Your task to perform on an android device: Open Youtube and go to "Your channel" Image 0: 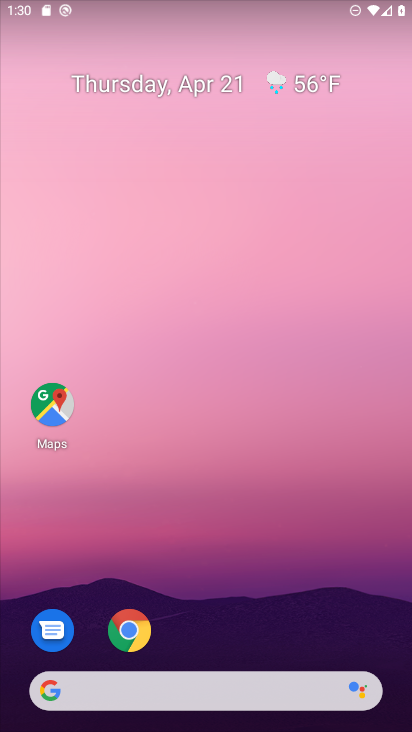
Step 0: drag from (206, 695) to (205, 197)
Your task to perform on an android device: Open Youtube and go to "Your channel" Image 1: 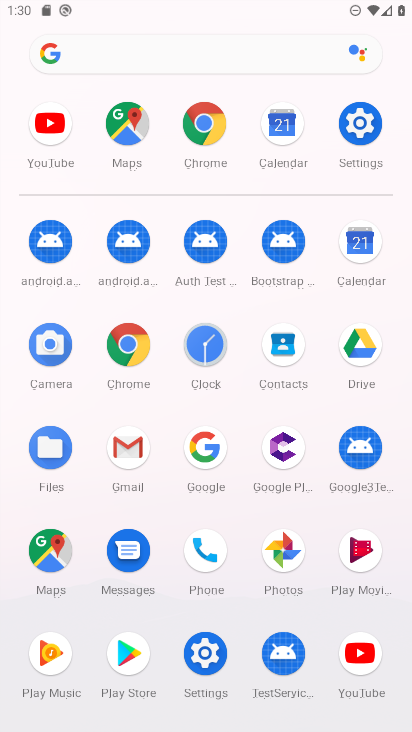
Step 1: click (354, 641)
Your task to perform on an android device: Open Youtube and go to "Your channel" Image 2: 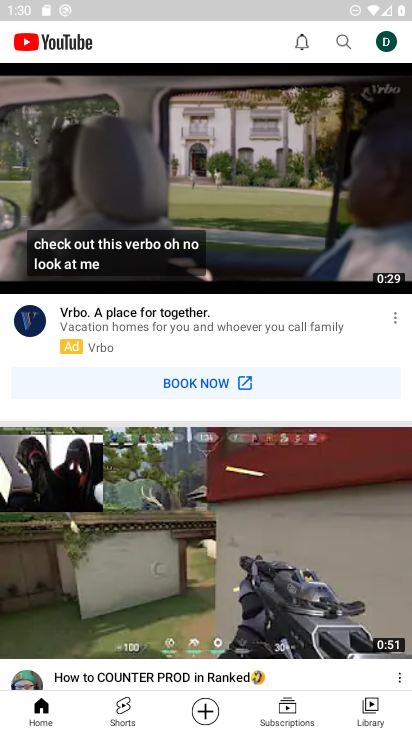
Step 2: click (378, 44)
Your task to perform on an android device: Open Youtube and go to "Your channel" Image 3: 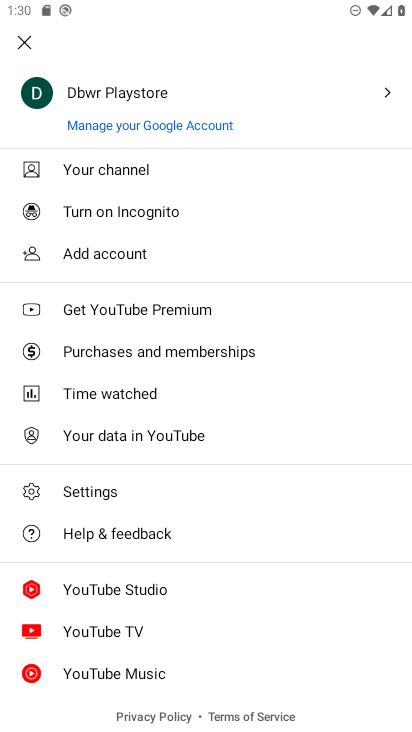
Step 3: click (98, 179)
Your task to perform on an android device: Open Youtube and go to "Your channel" Image 4: 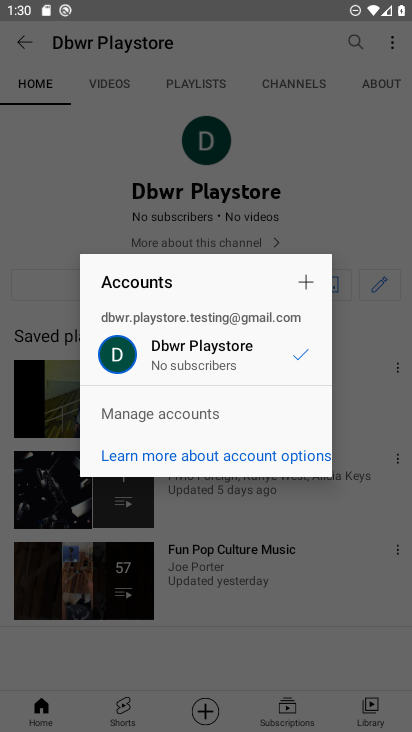
Step 4: task complete